Your task to perform on an android device: toggle javascript in the chrome app Image 0: 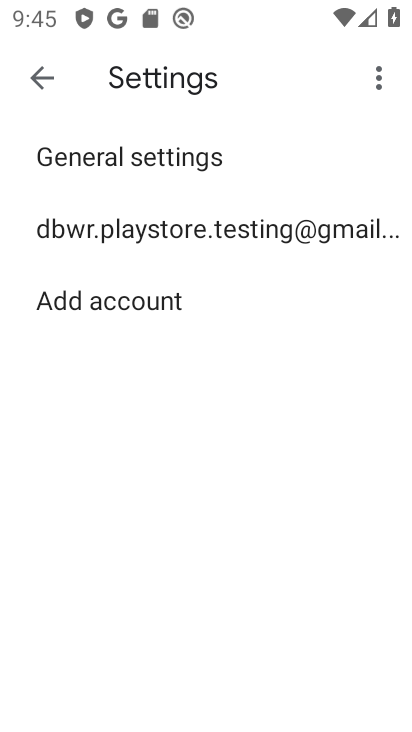
Step 0: press home button
Your task to perform on an android device: toggle javascript in the chrome app Image 1: 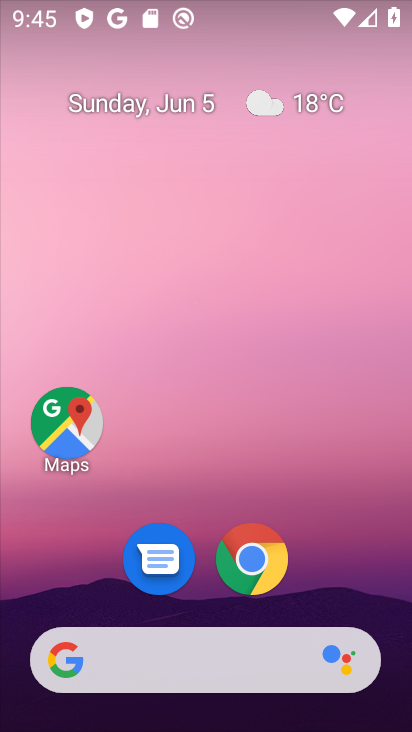
Step 1: click (264, 557)
Your task to perform on an android device: toggle javascript in the chrome app Image 2: 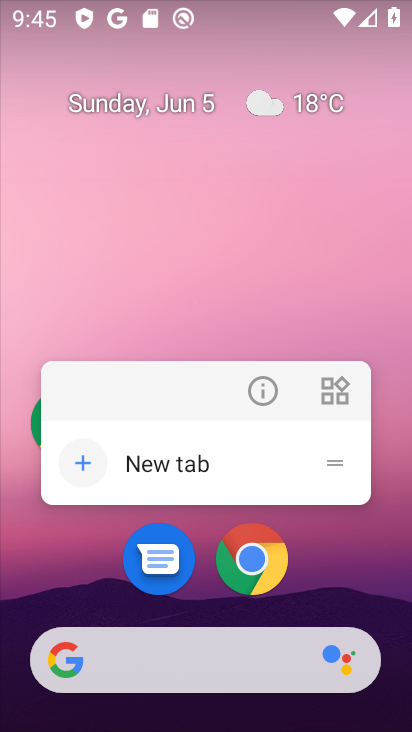
Step 2: click (264, 557)
Your task to perform on an android device: toggle javascript in the chrome app Image 3: 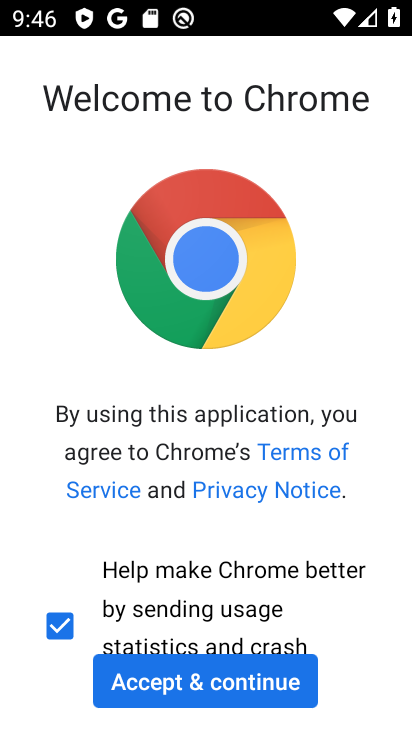
Step 3: click (274, 671)
Your task to perform on an android device: toggle javascript in the chrome app Image 4: 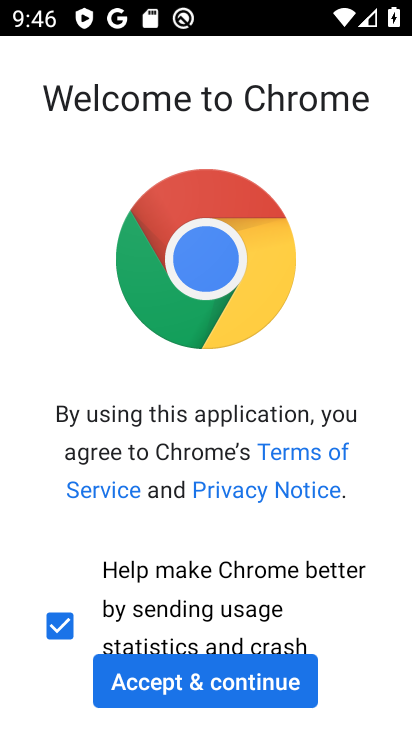
Step 4: click (274, 671)
Your task to perform on an android device: toggle javascript in the chrome app Image 5: 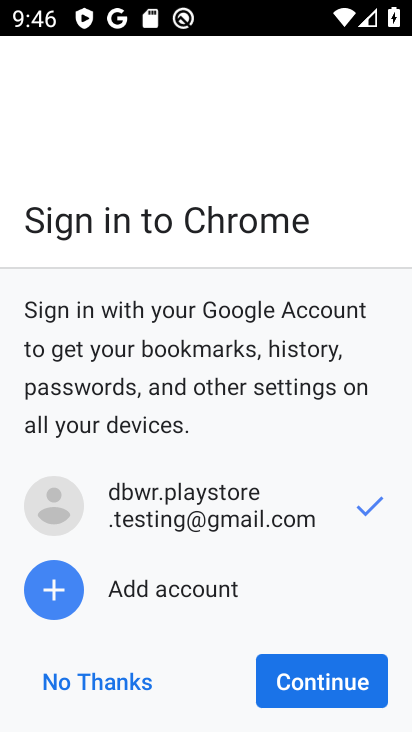
Step 5: click (274, 671)
Your task to perform on an android device: toggle javascript in the chrome app Image 6: 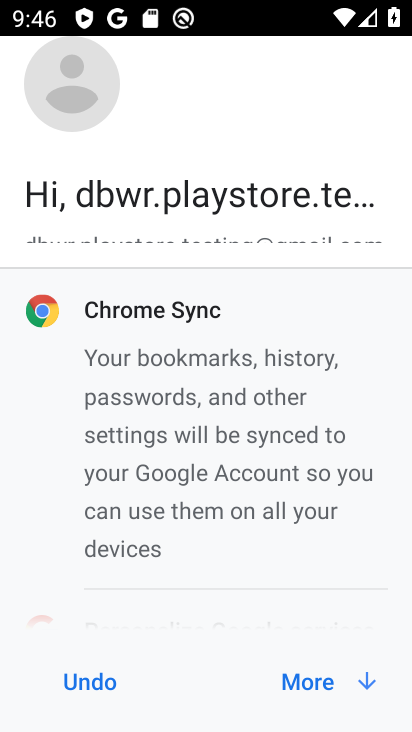
Step 6: click (312, 688)
Your task to perform on an android device: toggle javascript in the chrome app Image 7: 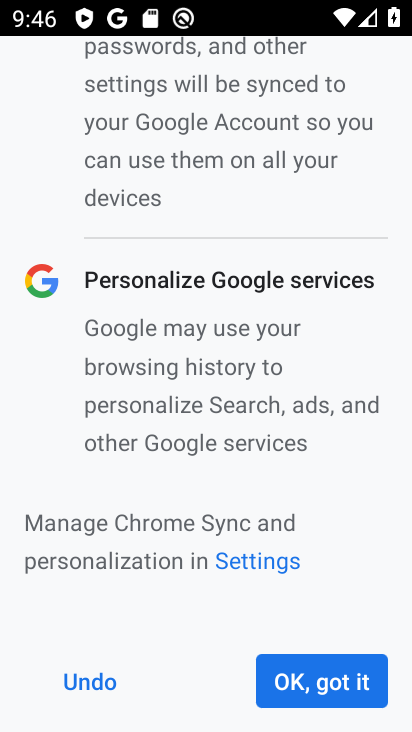
Step 7: click (312, 688)
Your task to perform on an android device: toggle javascript in the chrome app Image 8: 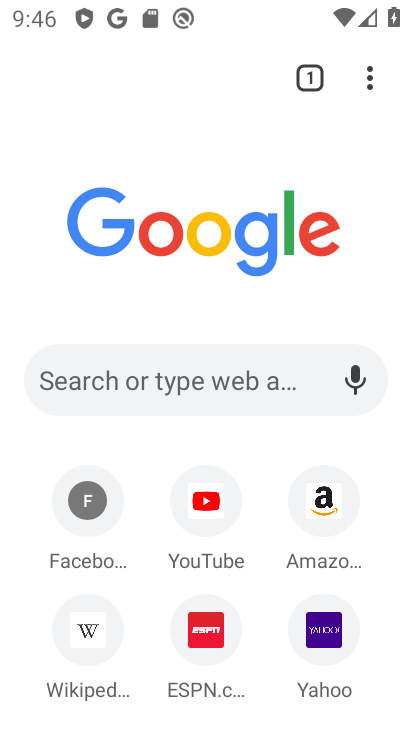
Step 8: click (367, 71)
Your task to perform on an android device: toggle javascript in the chrome app Image 9: 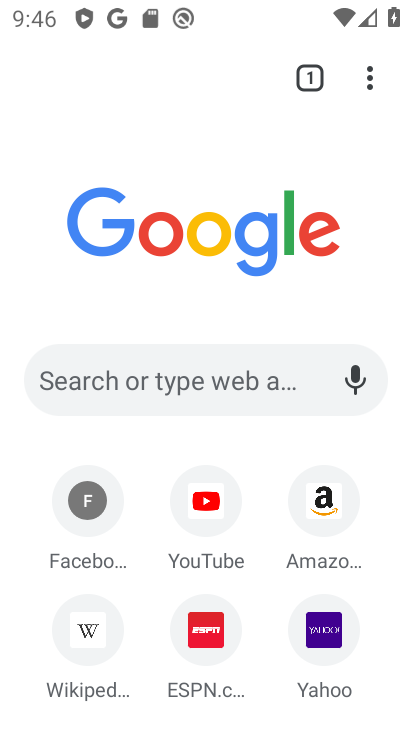
Step 9: click (367, 71)
Your task to perform on an android device: toggle javascript in the chrome app Image 10: 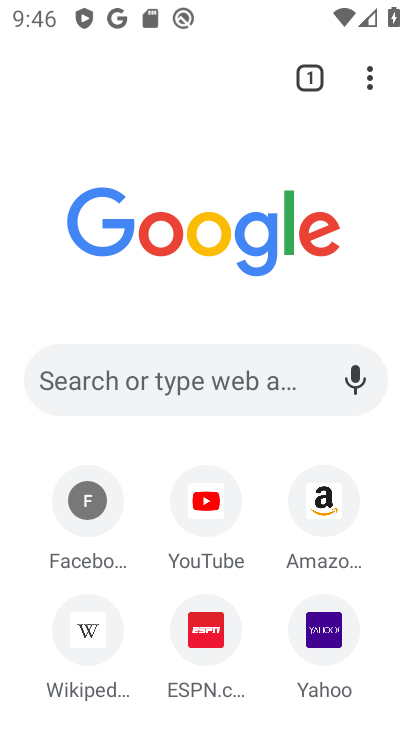
Step 10: click (367, 71)
Your task to perform on an android device: toggle javascript in the chrome app Image 11: 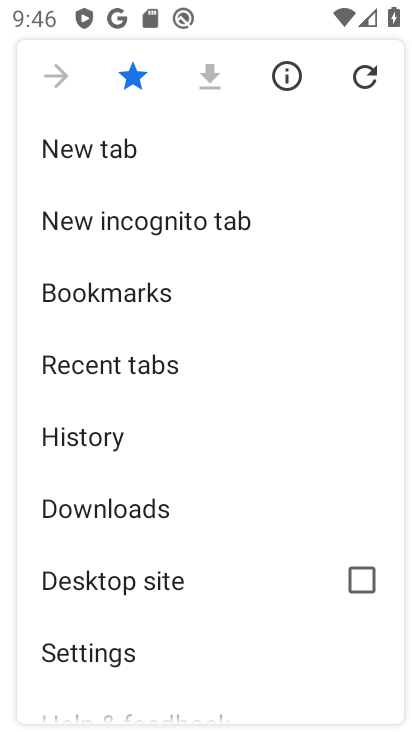
Step 11: click (72, 666)
Your task to perform on an android device: toggle javascript in the chrome app Image 12: 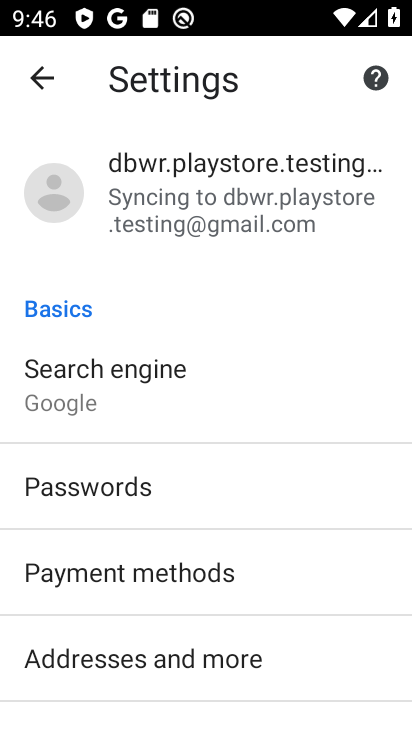
Step 12: drag from (308, 707) to (285, 199)
Your task to perform on an android device: toggle javascript in the chrome app Image 13: 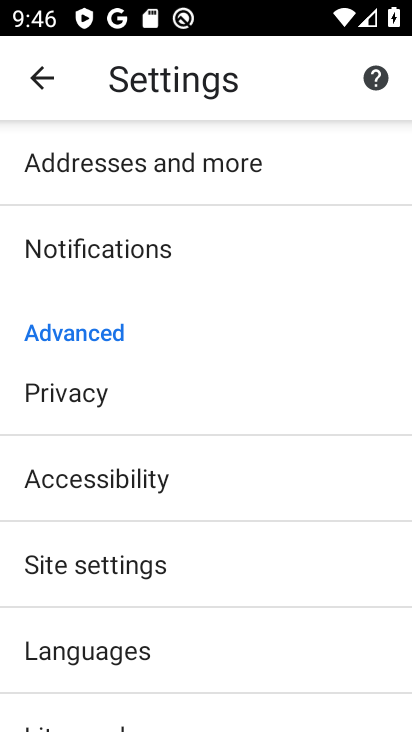
Step 13: drag from (223, 634) to (223, 342)
Your task to perform on an android device: toggle javascript in the chrome app Image 14: 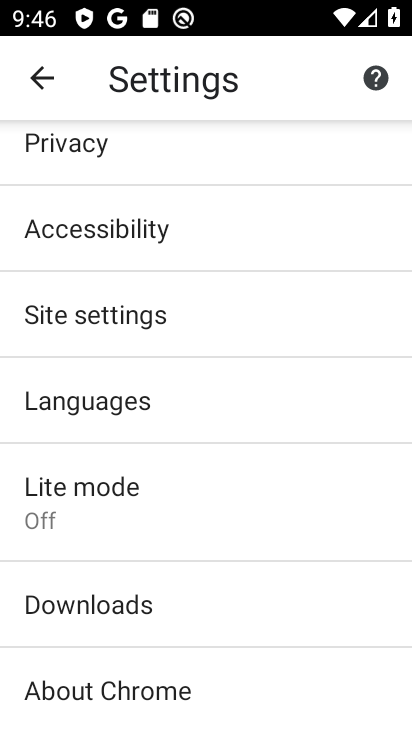
Step 14: click (61, 298)
Your task to perform on an android device: toggle javascript in the chrome app Image 15: 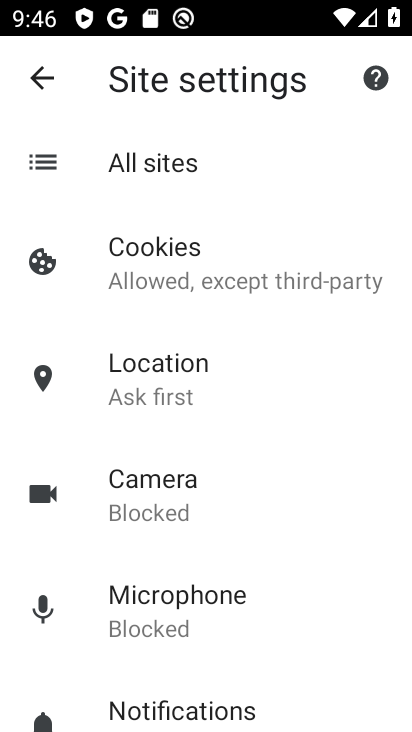
Step 15: drag from (299, 667) to (285, 302)
Your task to perform on an android device: toggle javascript in the chrome app Image 16: 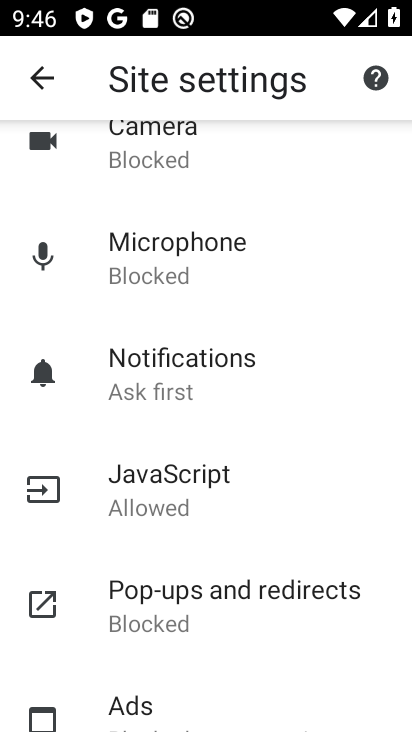
Step 16: click (163, 471)
Your task to perform on an android device: toggle javascript in the chrome app Image 17: 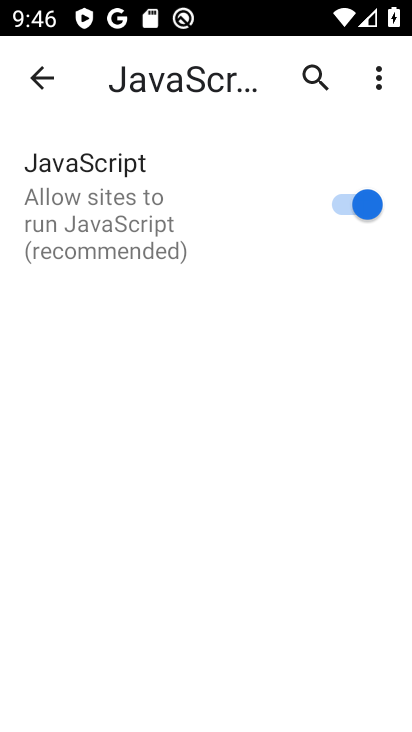
Step 17: click (354, 203)
Your task to perform on an android device: toggle javascript in the chrome app Image 18: 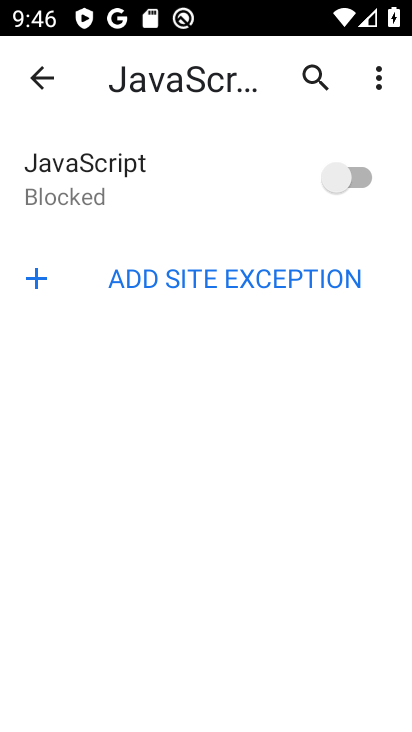
Step 18: task complete